Your task to perform on an android device: toggle wifi Image 0: 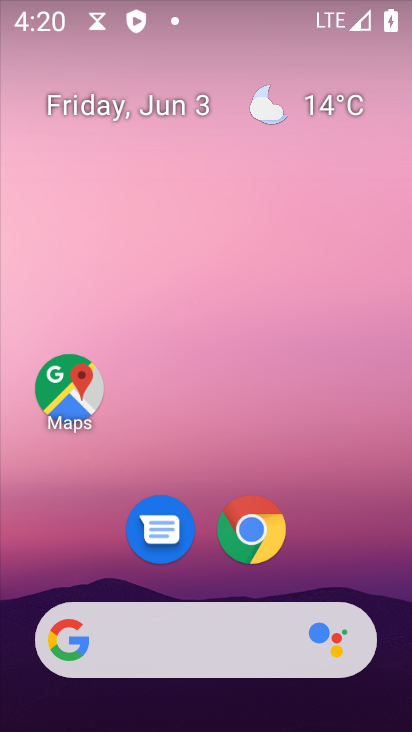
Step 0: drag from (367, 513) to (386, 71)
Your task to perform on an android device: toggle wifi Image 1: 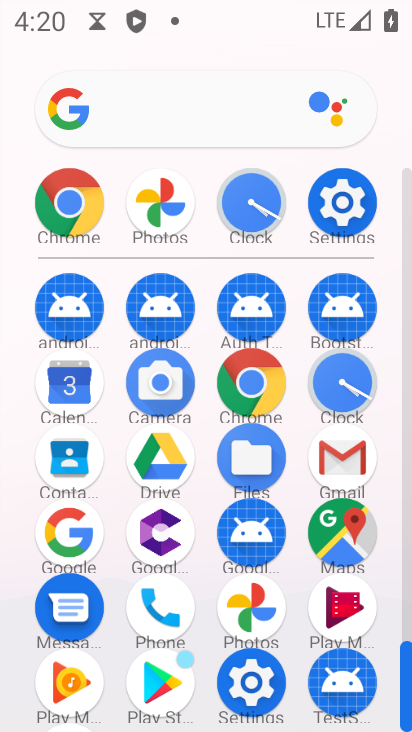
Step 1: click (370, 188)
Your task to perform on an android device: toggle wifi Image 2: 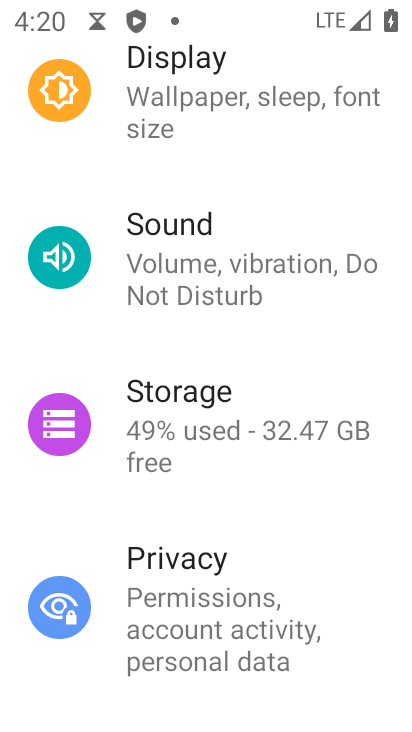
Step 2: drag from (175, 146) to (168, 633)
Your task to perform on an android device: toggle wifi Image 3: 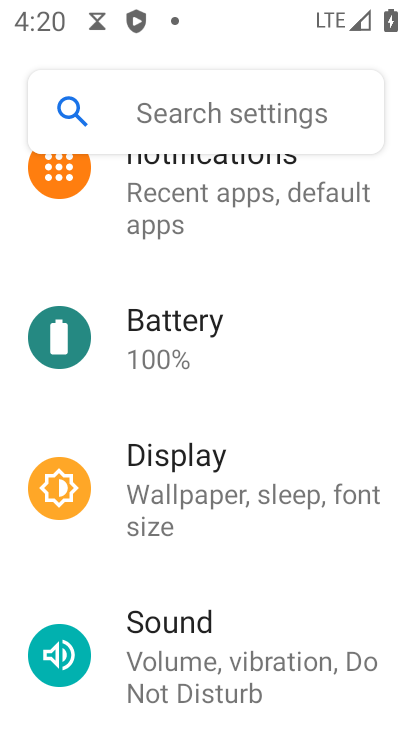
Step 3: drag from (225, 128) to (242, 603)
Your task to perform on an android device: toggle wifi Image 4: 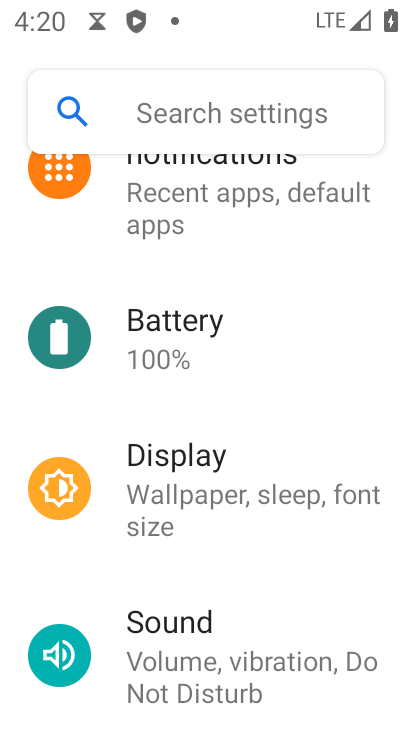
Step 4: drag from (245, 184) to (251, 598)
Your task to perform on an android device: toggle wifi Image 5: 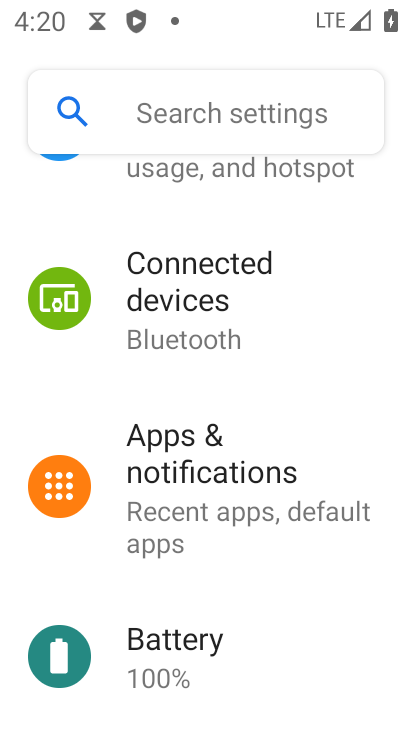
Step 5: drag from (206, 222) to (205, 620)
Your task to perform on an android device: toggle wifi Image 6: 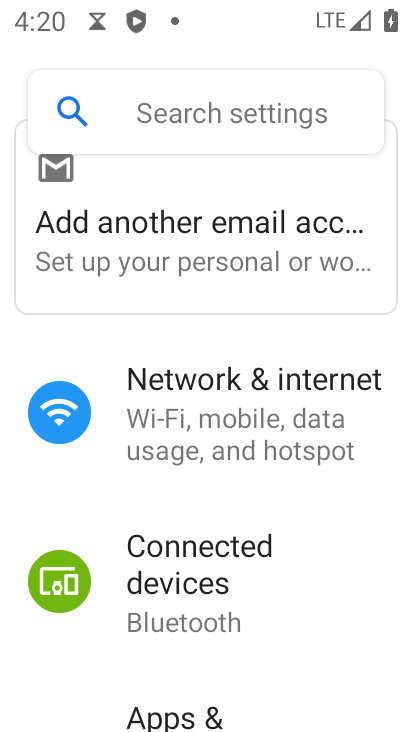
Step 6: drag from (206, 168) to (200, 607)
Your task to perform on an android device: toggle wifi Image 7: 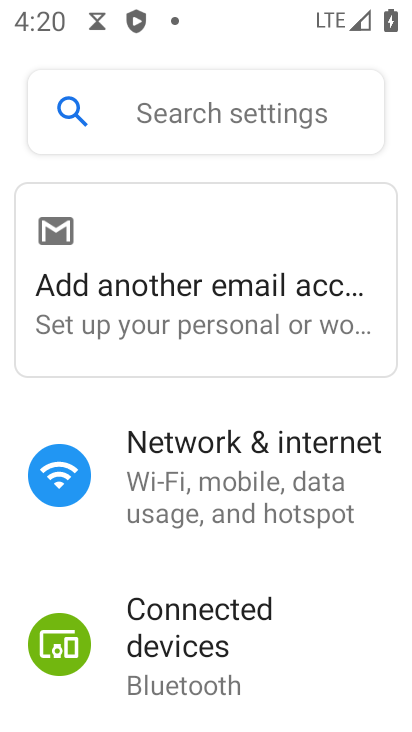
Step 7: click (196, 483)
Your task to perform on an android device: toggle wifi Image 8: 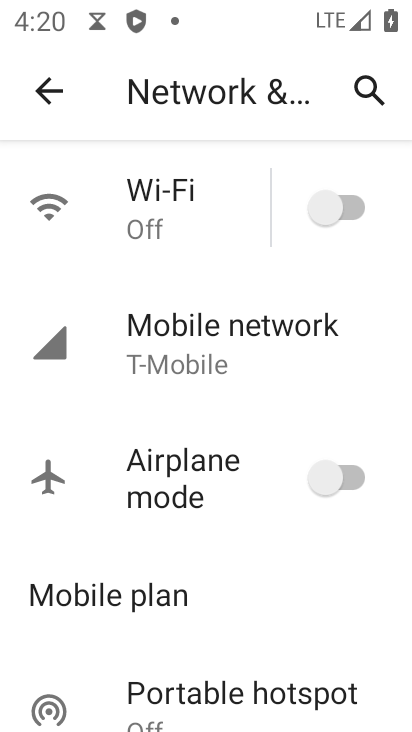
Step 8: click (341, 213)
Your task to perform on an android device: toggle wifi Image 9: 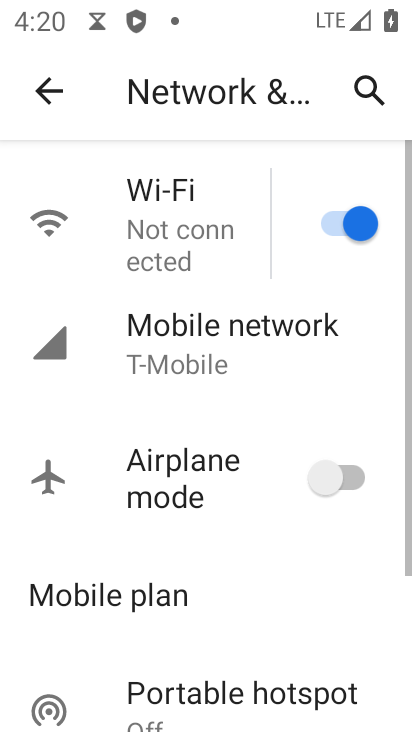
Step 9: task complete